Your task to perform on an android device: turn on priority inbox in the gmail app Image 0: 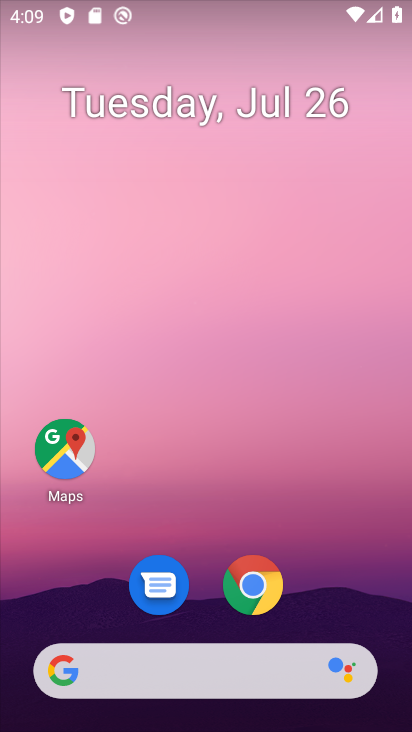
Step 0: drag from (332, 544) to (271, 48)
Your task to perform on an android device: turn on priority inbox in the gmail app Image 1: 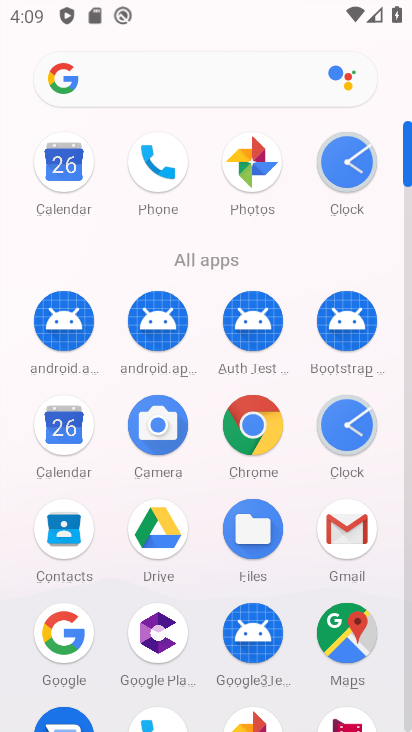
Step 1: click (350, 525)
Your task to perform on an android device: turn on priority inbox in the gmail app Image 2: 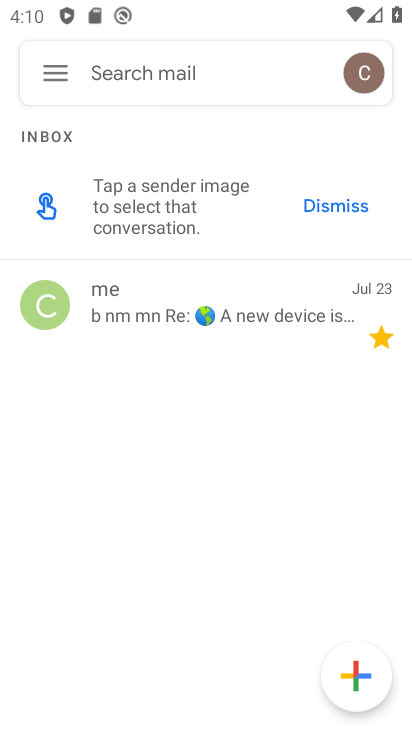
Step 2: click (53, 70)
Your task to perform on an android device: turn on priority inbox in the gmail app Image 3: 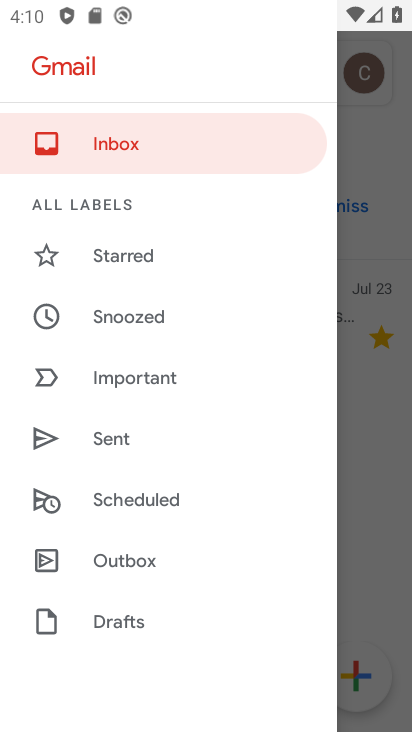
Step 3: drag from (181, 430) to (199, 36)
Your task to perform on an android device: turn on priority inbox in the gmail app Image 4: 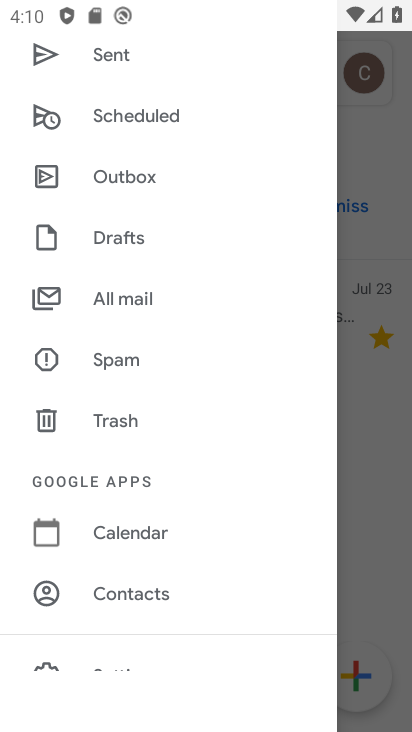
Step 4: drag from (188, 425) to (221, 48)
Your task to perform on an android device: turn on priority inbox in the gmail app Image 5: 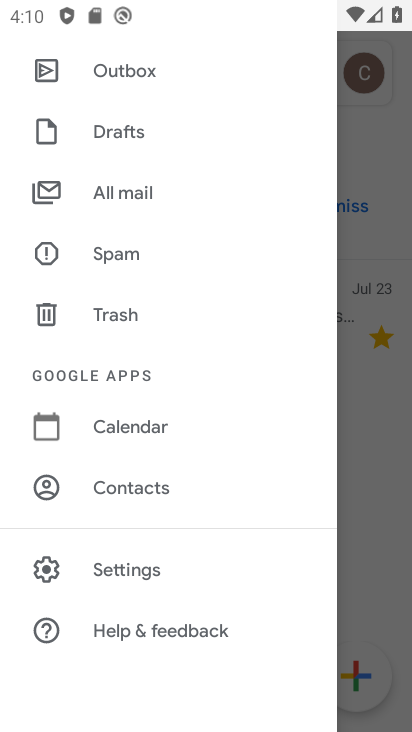
Step 5: click (118, 562)
Your task to perform on an android device: turn on priority inbox in the gmail app Image 6: 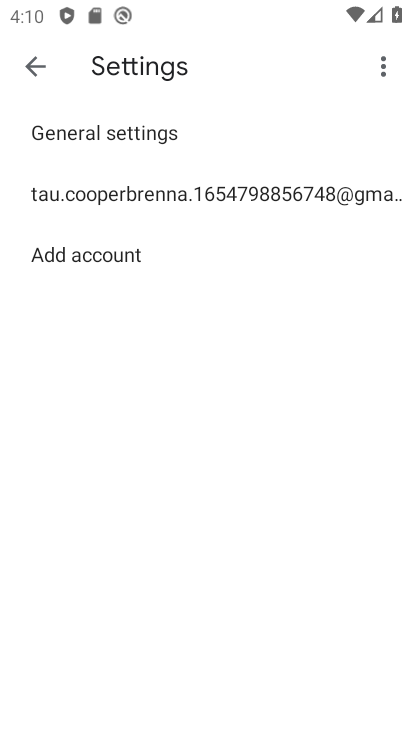
Step 6: click (257, 195)
Your task to perform on an android device: turn on priority inbox in the gmail app Image 7: 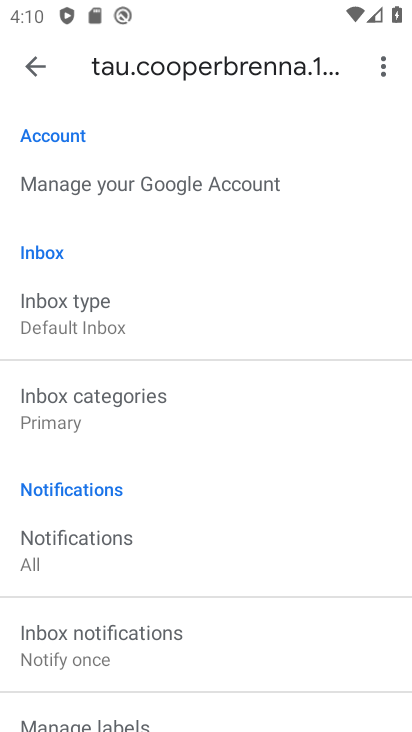
Step 7: click (98, 313)
Your task to perform on an android device: turn on priority inbox in the gmail app Image 8: 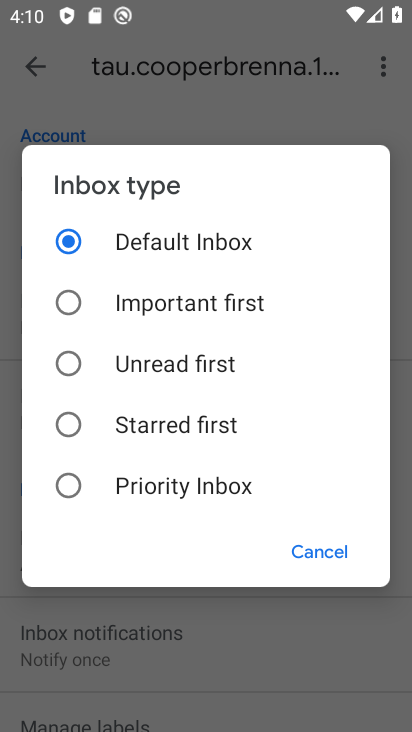
Step 8: click (62, 483)
Your task to perform on an android device: turn on priority inbox in the gmail app Image 9: 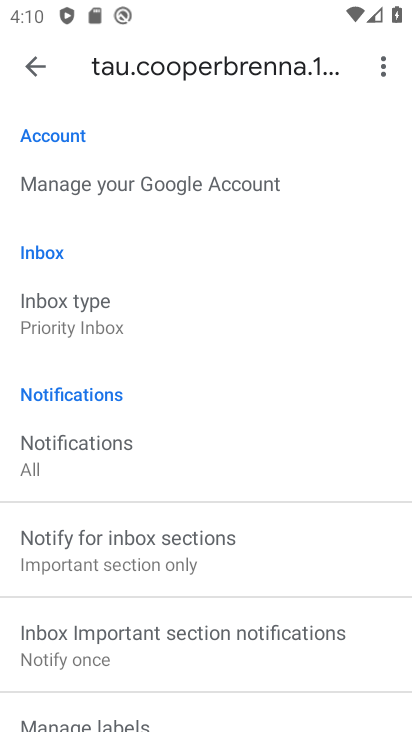
Step 9: task complete